Your task to perform on an android device: add a contact in the contacts app Image 0: 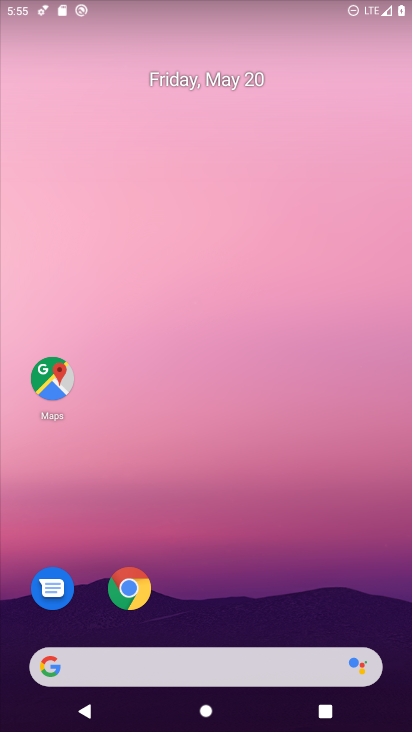
Step 0: drag from (197, 604) to (195, 3)
Your task to perform on an android device: add a contact in the contacts app Image 1: 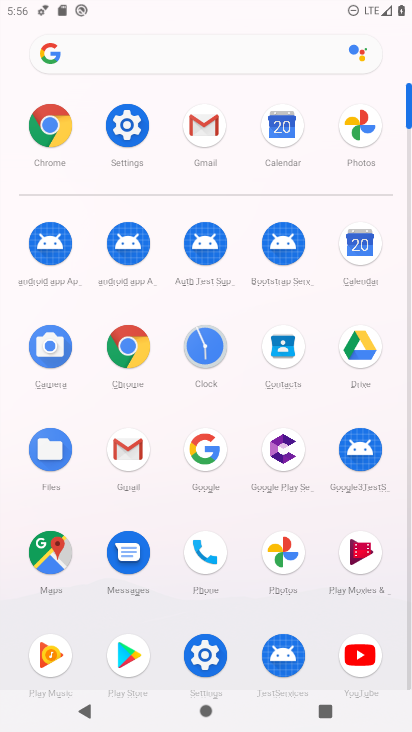
Step 1: click (282, 357)
Your task to perform on an android device: add a contact in the contacts app Image 2: 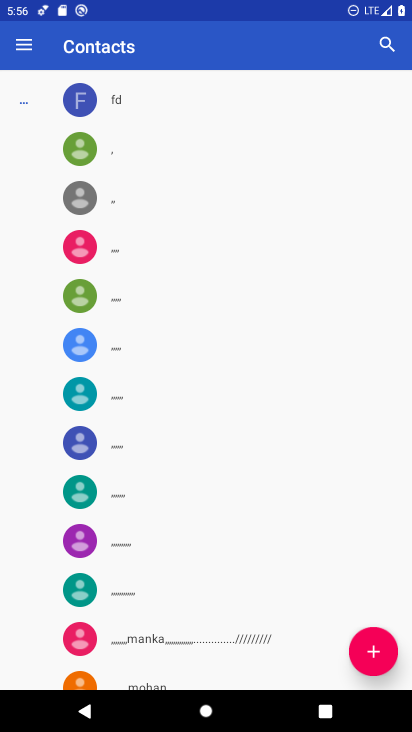
Step 2: click (372, 659)
Your task to perform on an android device: add a contact in the contacts app Image 3: 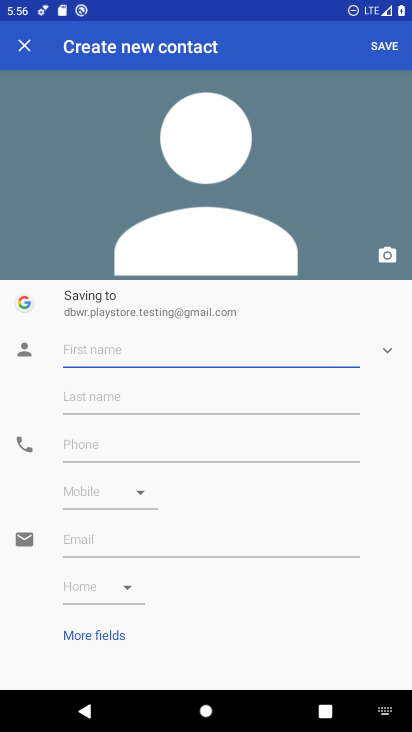
Step 3: type "Poonam"
Your task to perform on an android device: add a contact in the contacts app Image 4: 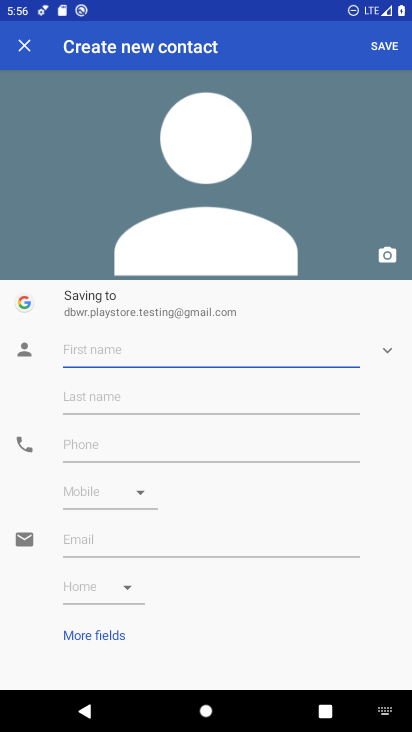
Step 4: click (121, 397)
Your task to perform on an android device: add a contact in the contacts app Image 5: 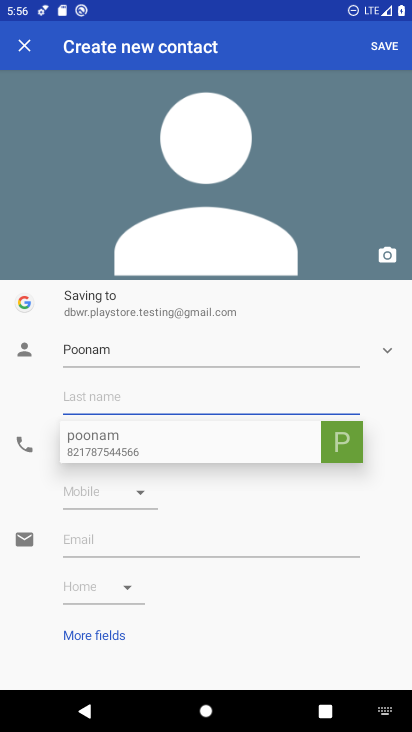
Step 5: type "yadav"
Your task to perform on an android device: add a contact in the contacts app Image 6: 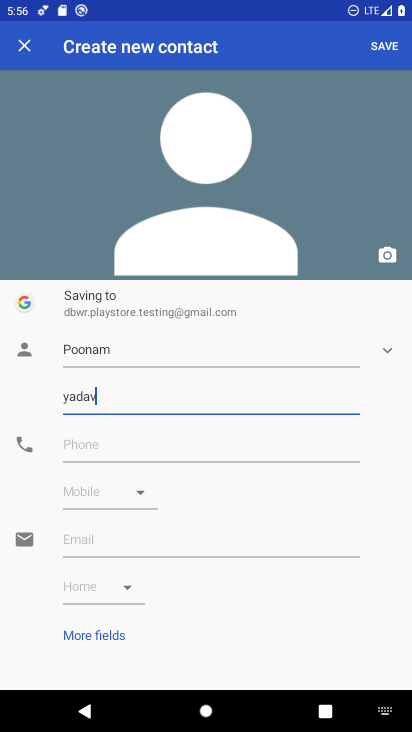
Step 6: click (127, 444)
Your task to perform on an android device: add a contact in the contacts app Image 7: 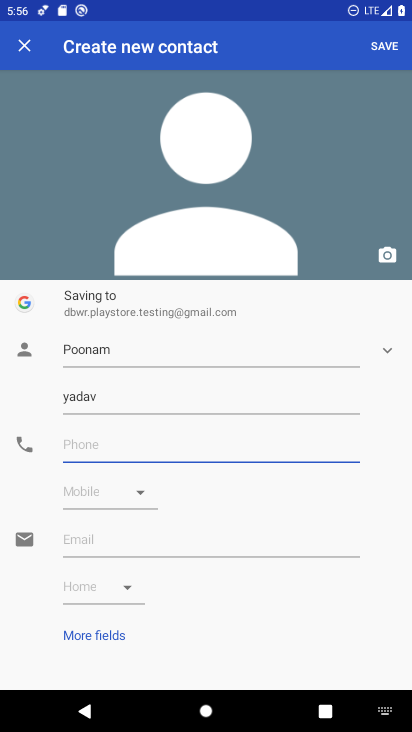
Step 7: type "8989898989"
Your task to perform on an android device: add a contact in the contacts app Image 8: 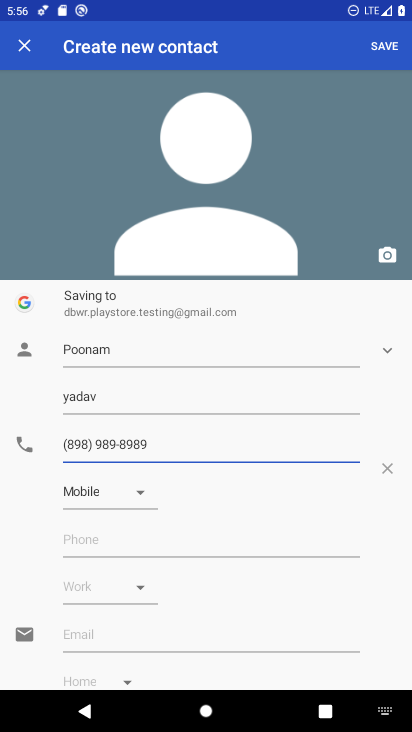
Step 8: click (374, 45)
Your task to perform on an android device: add a contact in the contacts app Image 9: 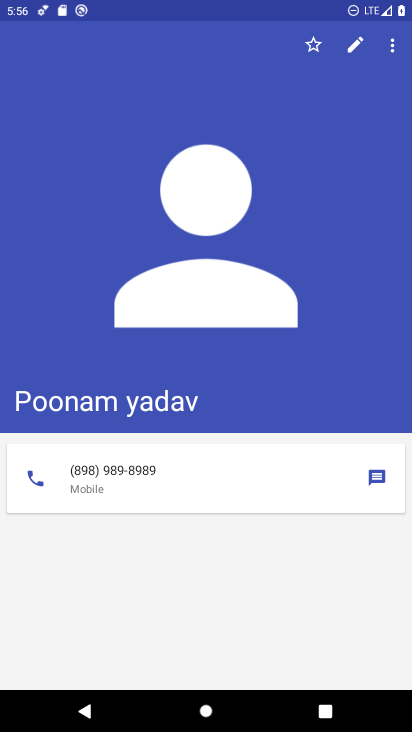
Step 9: task complete